Your task to perform on an android device: Set the phone to "Do not disturb". Image 0: 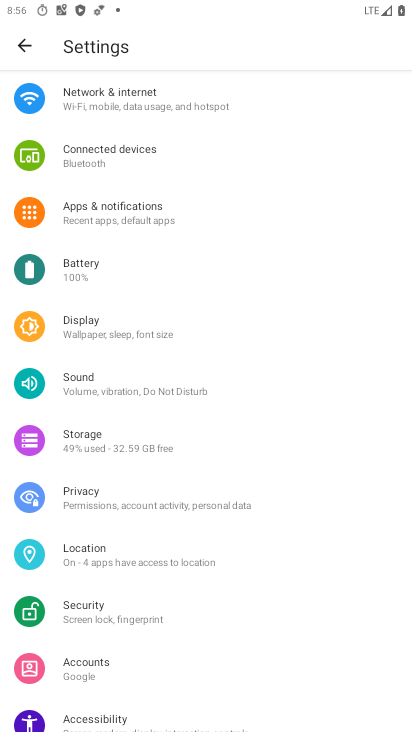
Step 0: drag from (187, 628) to (286, 252)
Your task to perform on an android device: Set the phone to "Do not disturb". Image 1: 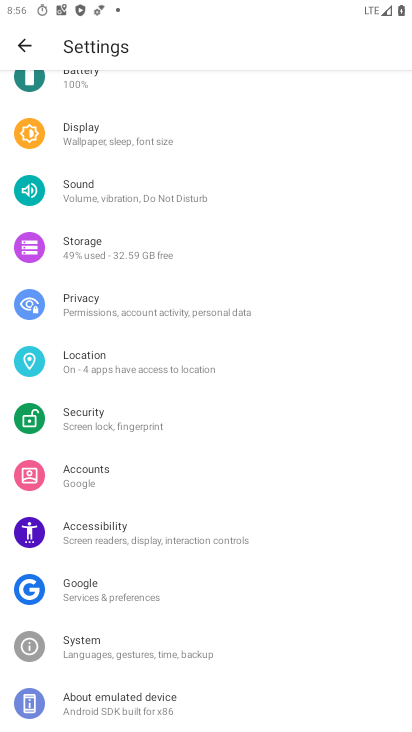
Step 1: drag from (202, 231) to (282, 719)
Your task to perform on an android device: Set the phone to "Do not disturb". Image 2: 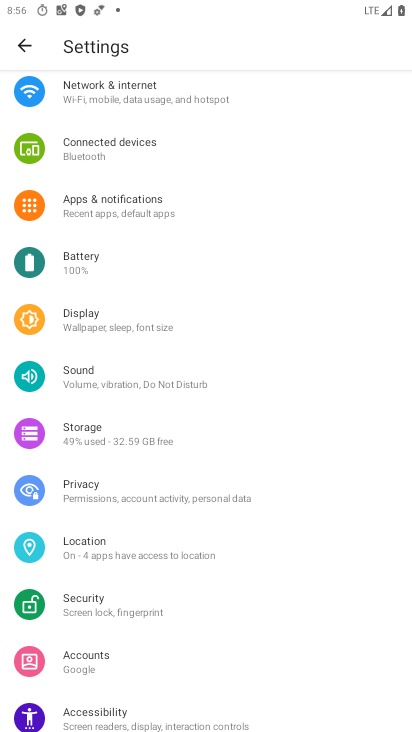
Step 2: drag from (166, 173) to (269, 624)
Your task to perform on an android device: Set the phone to "Do not disturb". Image 3: 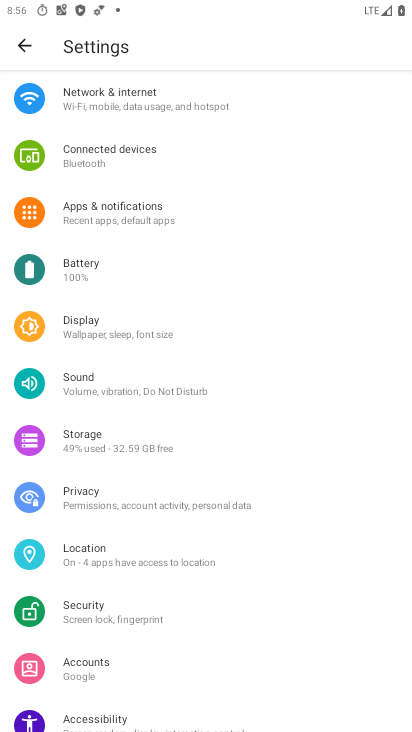
Step 3: click (135, 218)
Your task to perform on an android device: Set the phone to "Do not disturb". Image 4: 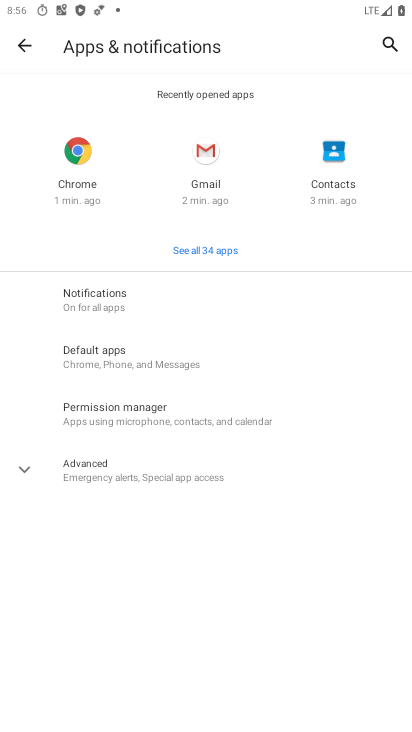
Step 4: click (135, 310)
Your task to perform on an android device: Set the phone to "Do not disturb". Image 5: 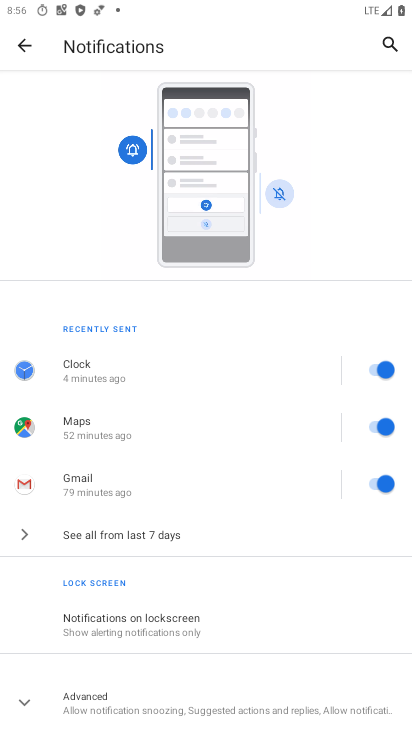
Step 5: click (157, 695)
Your task to perform on an android device: Set the phone to "Do not disturb". Image 6: 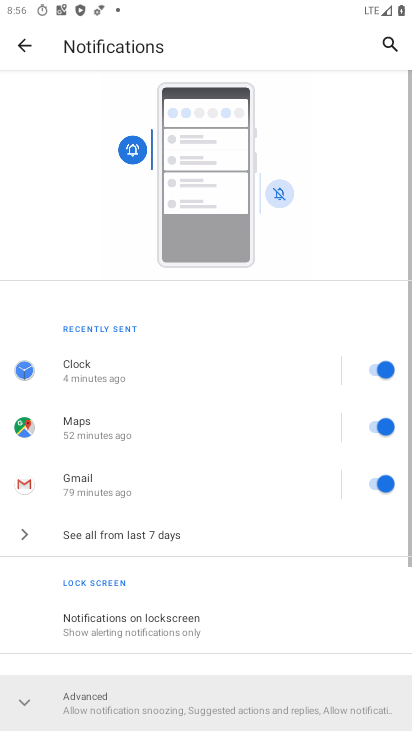
Step 6: drag from (157, 695) to (348, 59)
Your task to perform on an android device: Set the phone to "Do not disturb". Image 7: 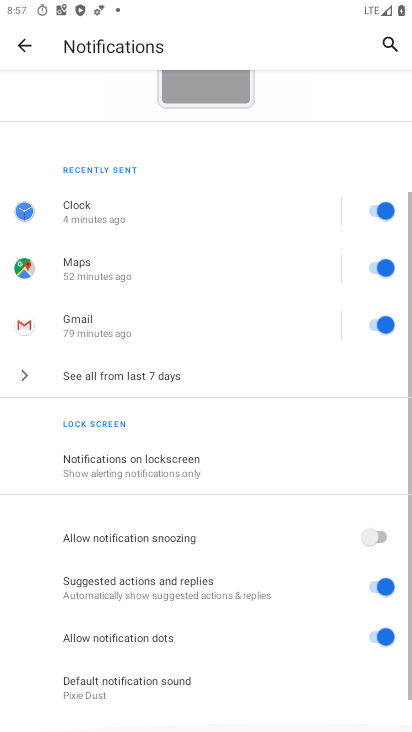
Step 7: click (128, 699)
Your task to perform on an android device: Set the phone to "Do not disturb". Image 8: 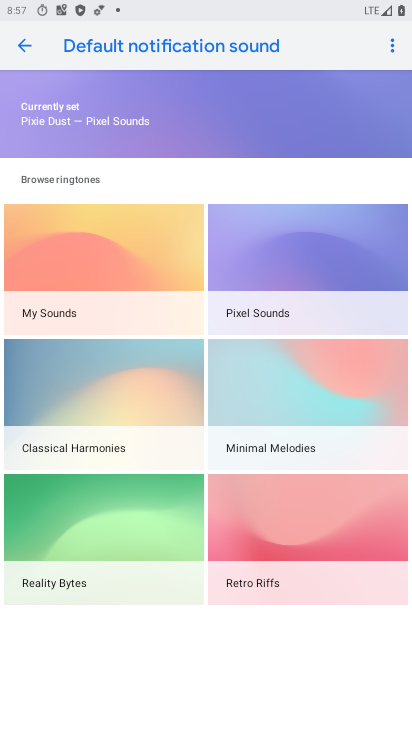
Step 8: click (25, 35)
Your task to perform on an android device: Set the phone to "Do not disturb". Image 9: 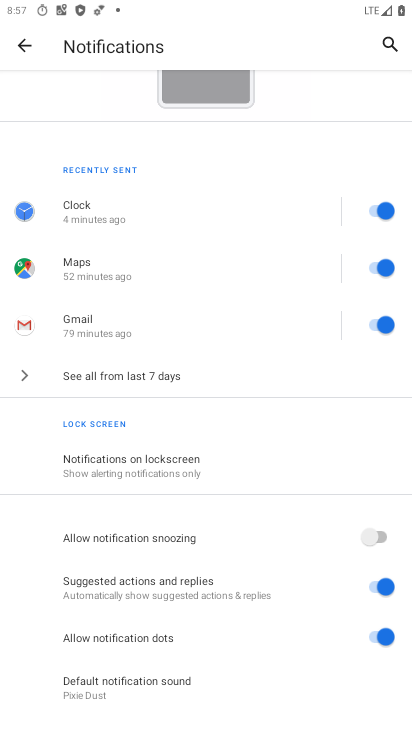
Step 9: drag from (175, 589) to (313, 144)
Your task to perform on an android device: Set the phone to "Do not disturb". Image 10: 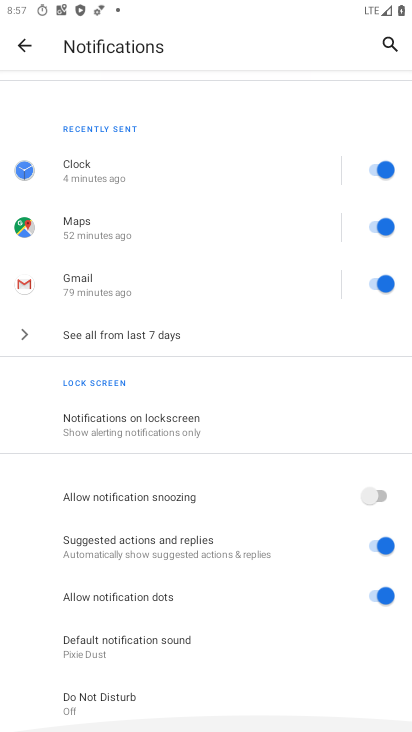
Step 10: click (129, 719)
Your task to perform on an android device: Set the phone to "Do not disturb". Image 11: 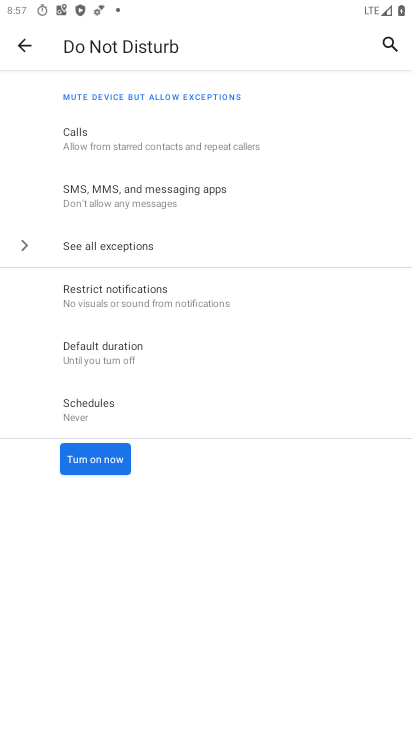
Step 11: click (87, 455)
Your task to perform on an android device: Set the phone to "Do not disturb". Image 12: 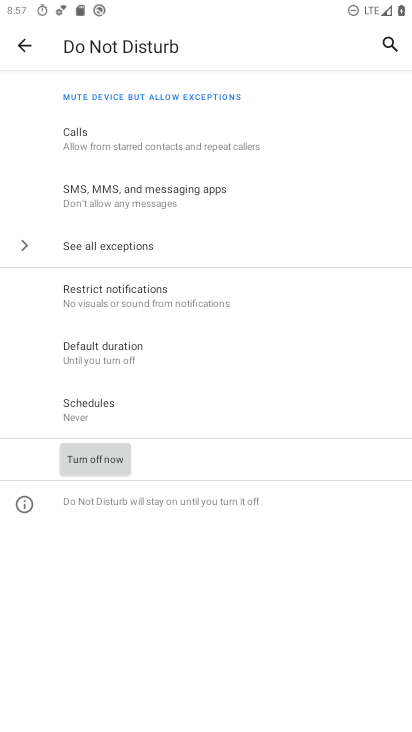
Step 12: task complete